Your task to perform on an android device: Open Yahoo.com Image 0: 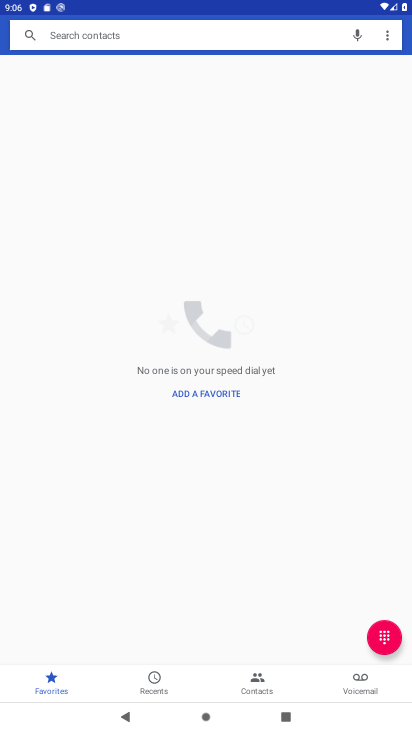
Step 0: press home button
Your task to perform on an android device: Open Yahoo.com Image 1: 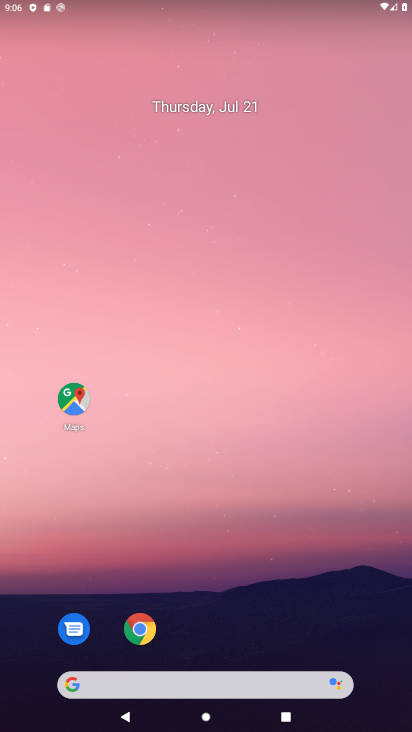
Step 1: drag from (256, 567) to (242, 47)
Your task to perform on an android device: Open Yahoo.com Image 2: 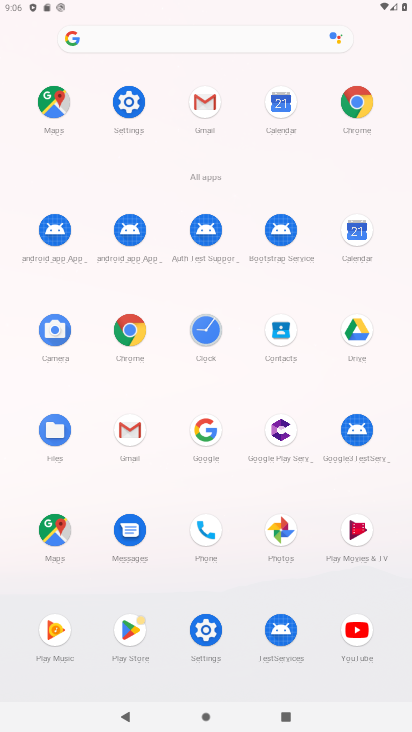
Step 2: click (351, 97)
Your task to perform on an android device: Open Yahoo.com Image 3: 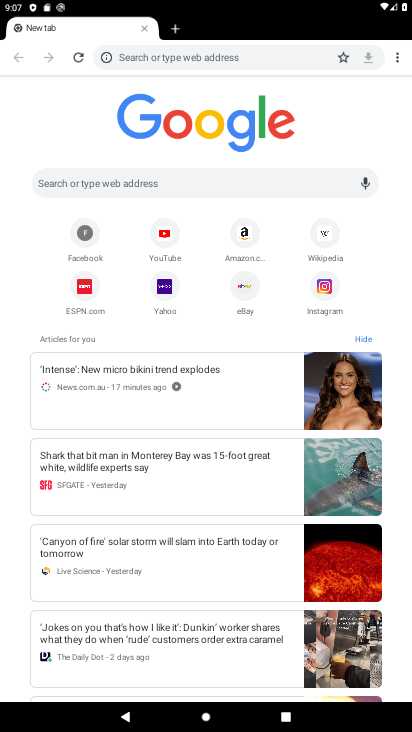
Step 3: click (162, 284)
Your task to perform on an android device: Open Yahoo.com Image 4: 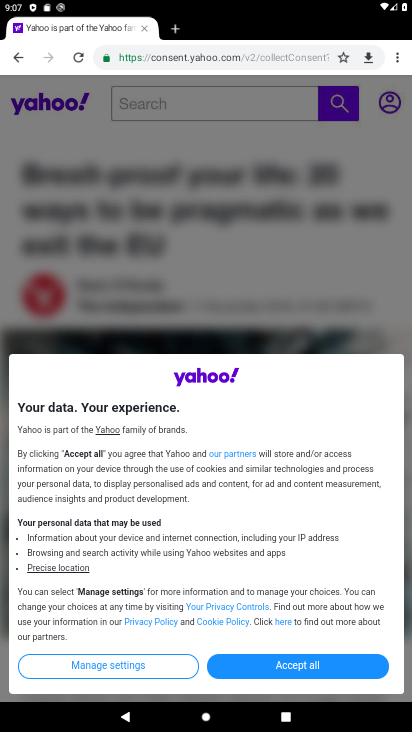
Step 4: task complete